Your task to perform on an android device: Go to wifi settings Image 0: 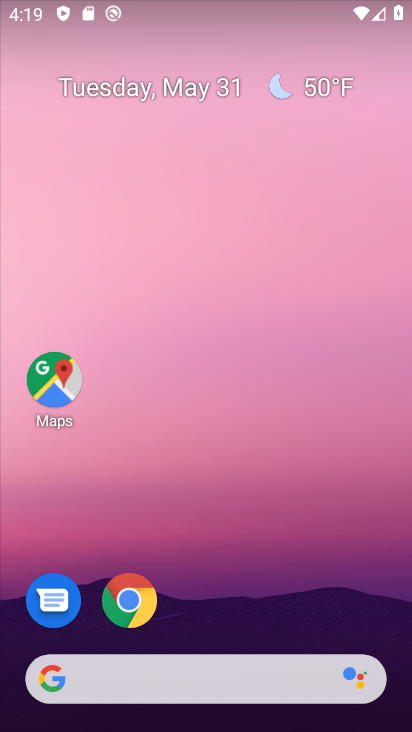
Step 0: drag from (267, 574) to (224, 184)
Your task to perform on an android device: Go to wifi settings Image 1: 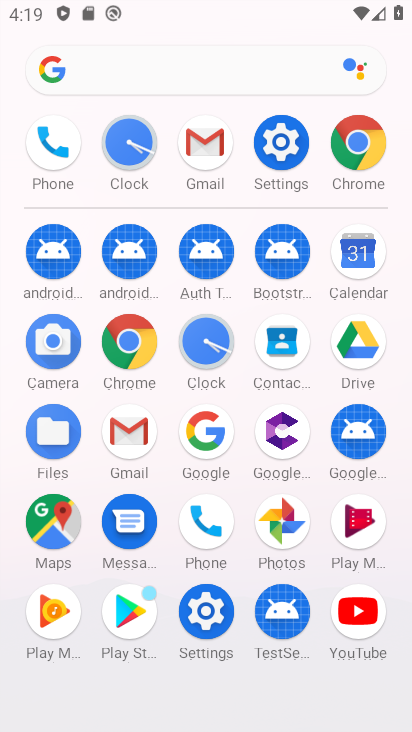
Step 1: click (281, 143)
Your task to perform on an android device: Go to wifi settings Image 2: 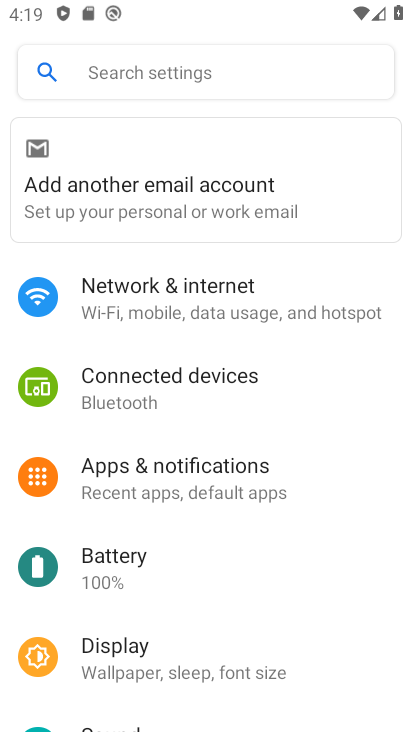
Step 2: click (171, 305)
Your task to perform on an android device: Go to wifi settings Image 3: 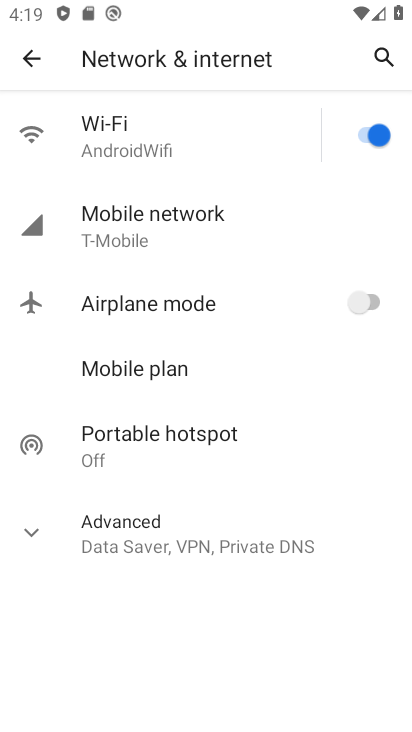
Step 3: click (114, 143)
Your task to perform on an android device: Go to wifi settings Image 4: 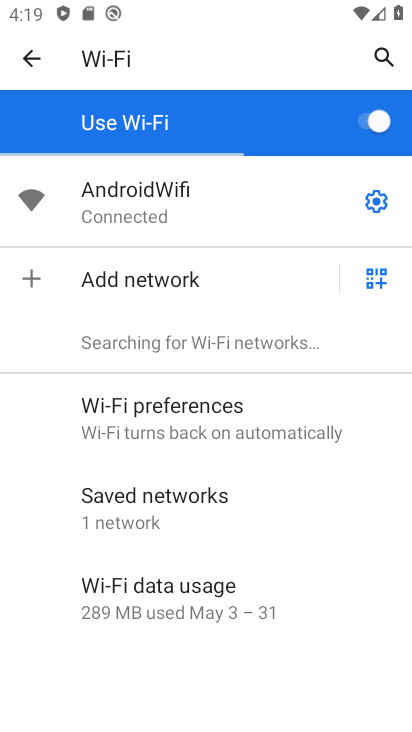
Step 4: click (375, 195)
Your task to perform on an android device: Go to wifi settings Image 5: 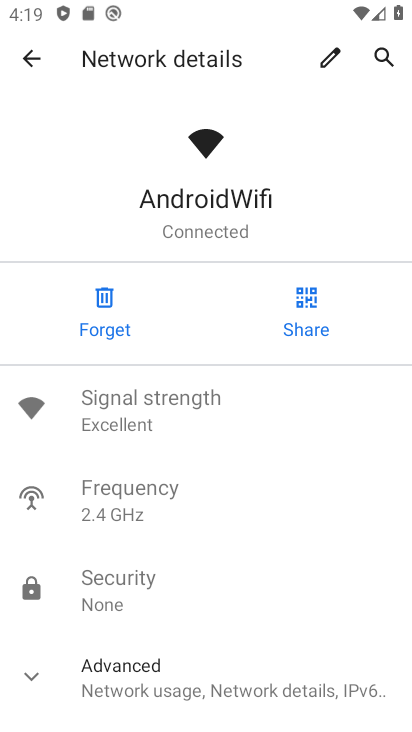
Step 5: task complete